Your task to perform on an android device: turn off priority inbox in the gmail app Image 0: 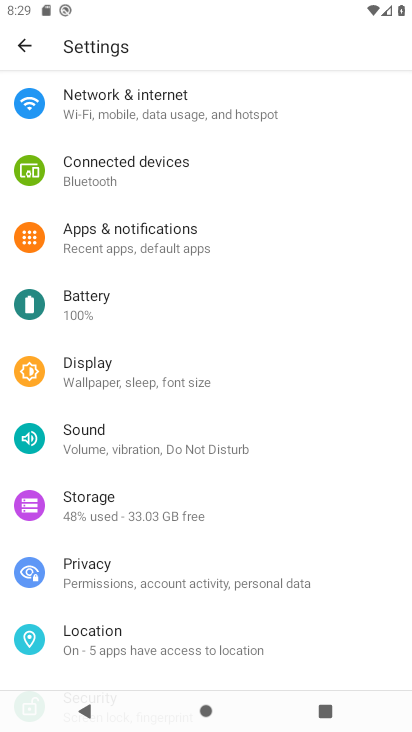
Step 0: press home button
Your task to perform on an android device: turn off priority inbox in the gmail app Image 1: 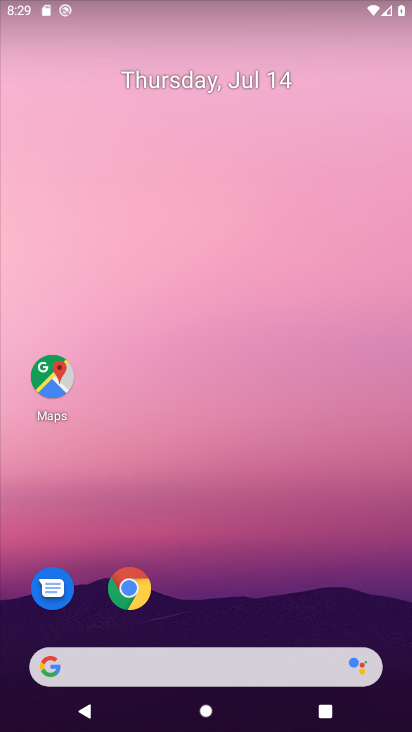
Step 1: drag from (350, 591) to (347, 150)
Your task to perform on an android device: turn off priority inbox in the gmail app Image 2: 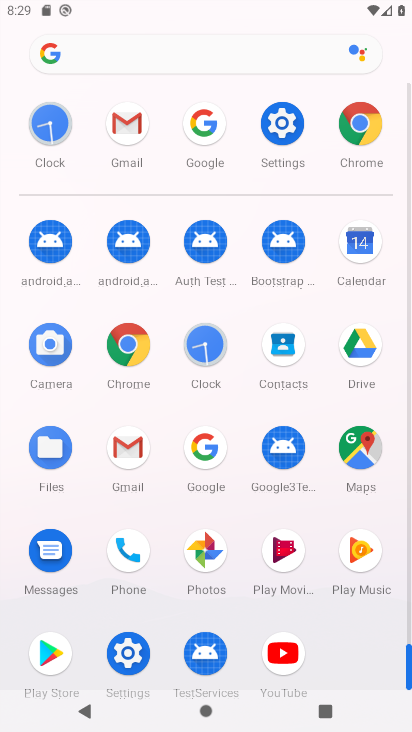
Step 2: click (134, 448)
Your task to perform on an android device: turn off priority inbox in the gmail app Image 3: 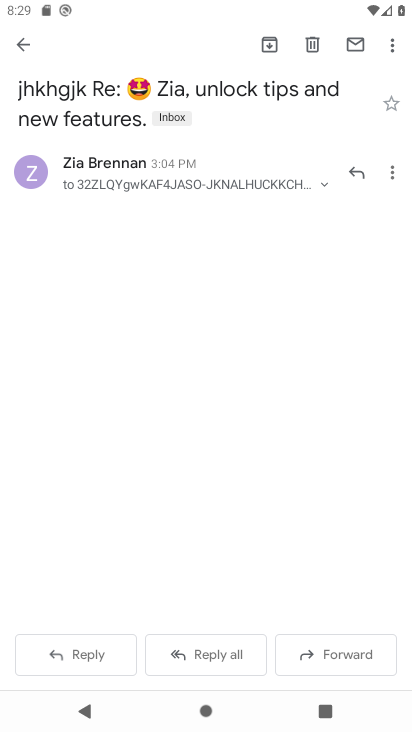
Step 3: press back button
Your task to perform on an android device: turn off priority inbox in the gmail app Image 4: 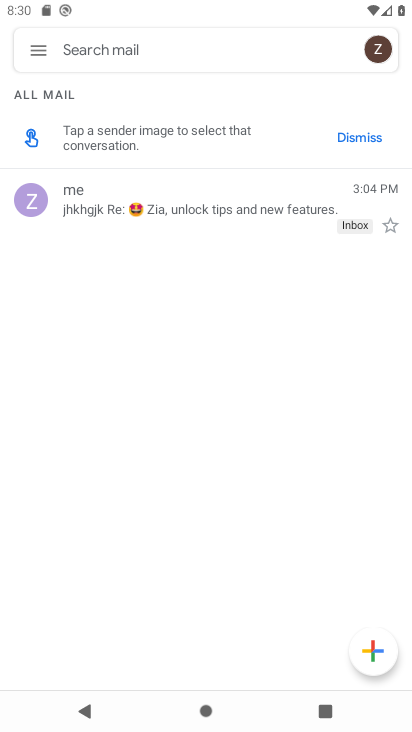
Step 4: click (39, 57)
Your task to perform on an android device: turn off priority inbox in the gmail app Image 5: 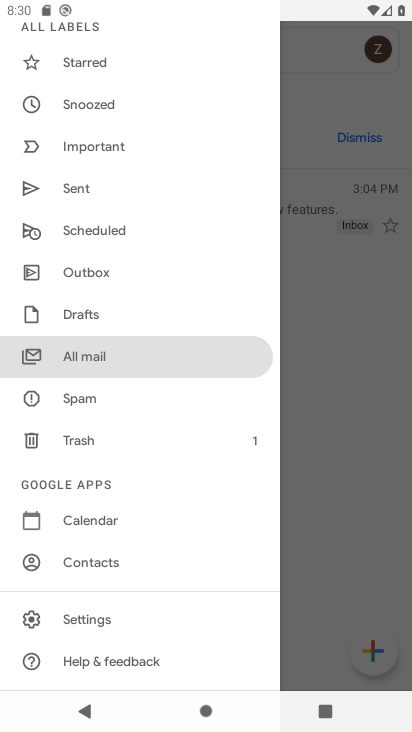
Step 5: drag from (225, 190) to (221, 279)
Your task to perform on an android device: turn off priority inbox in the gmail app Image 6: 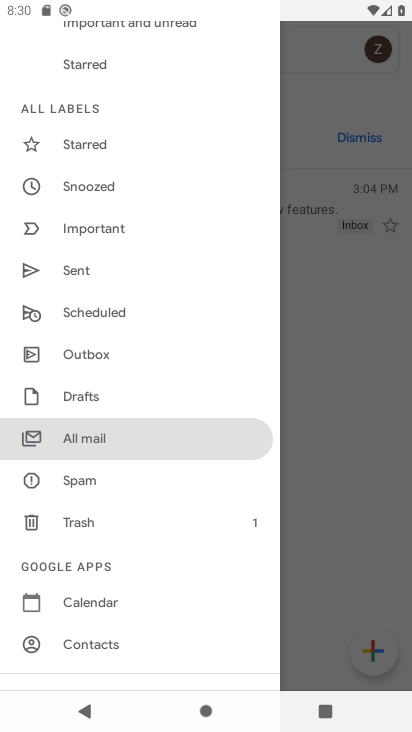
Step 6: drag from (220, 181) to (220, 263)
Your task to perform on an android device: turn off priority inbox in the gmail app Image 7: 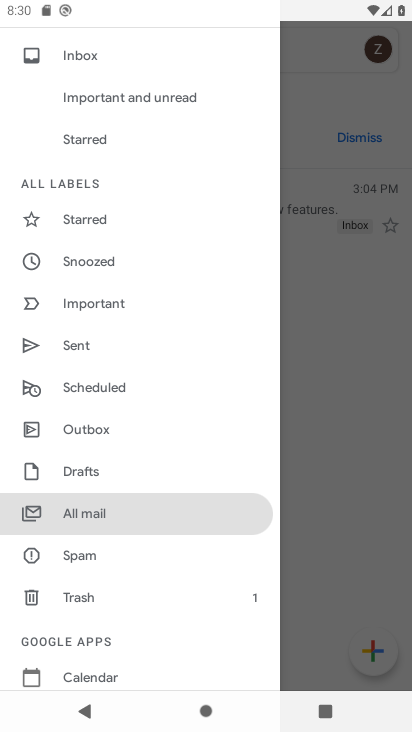
Step 7: drag from (219, 170) to (230, 368)
Your task to perform on an android device: turn off priority inbox in the gmail app Image 8: 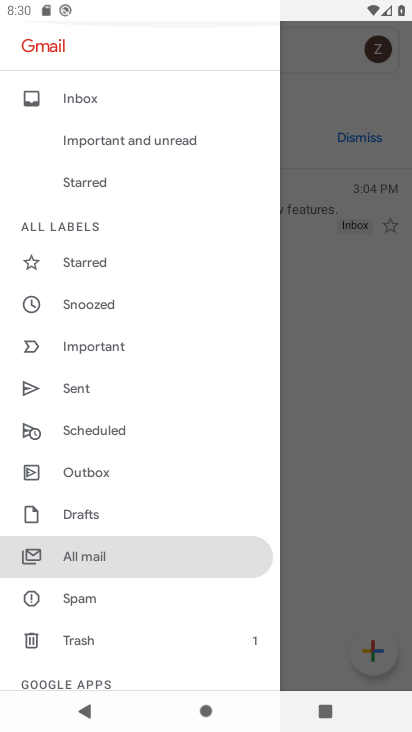
Step 8: drag from (223, 405) to (223, 228)
Your task to perform on an android device: turn off priority inbox in the gmail app Image 9: 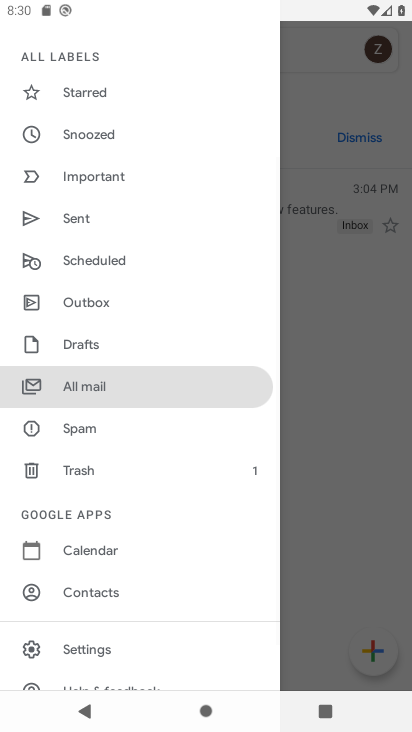
Step 9: drag from (201, 345) to (202, 195)
Your task to perform on an android device: turn off priority inbox in the gmail app Image 10: 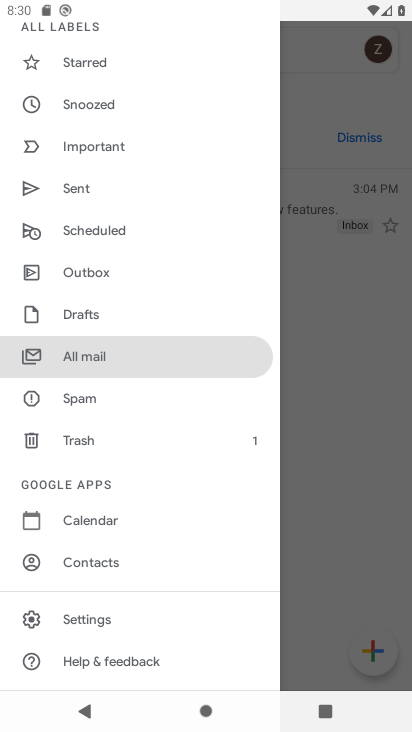
Step 10: drag from (188, 333) to (189, 189)
Your task to perform on an android device: turn off priority inbox in the gmail app Image 11: 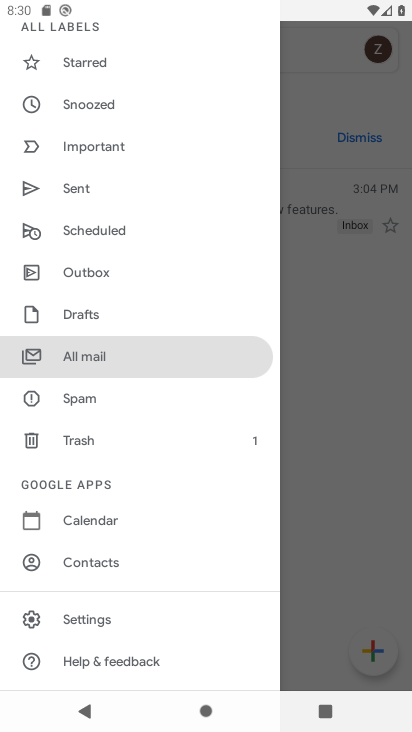
Step 11: click (136, 610)
Your task to perform on an android device: turn off priority inbox in the gmail app Image 12: 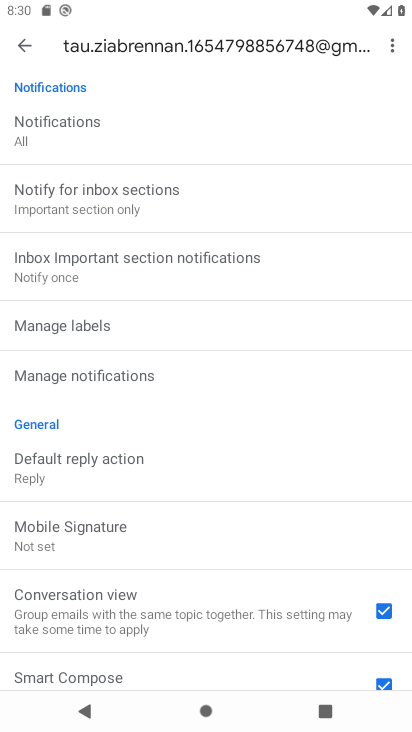
Step 12: drag from (226, 471) to (239, 349)
Your task to perform on an android device: turn off priority inbox in the gmail app Image 13: 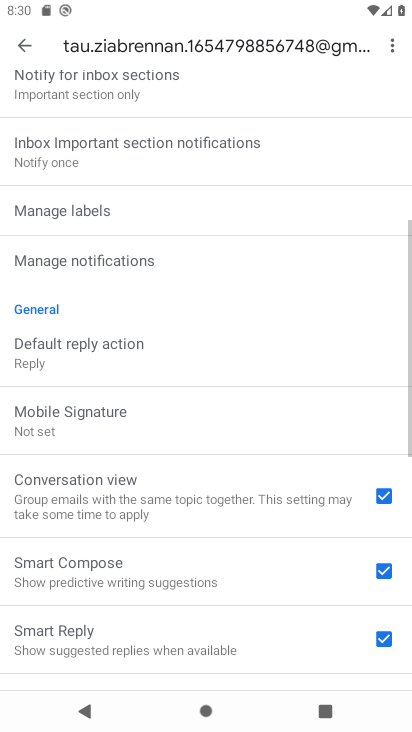
Step 13: drag from (257, 454) to (258, 334)
Your task to perform on an android device: turn off priority inbox in the gmail app Image 14: 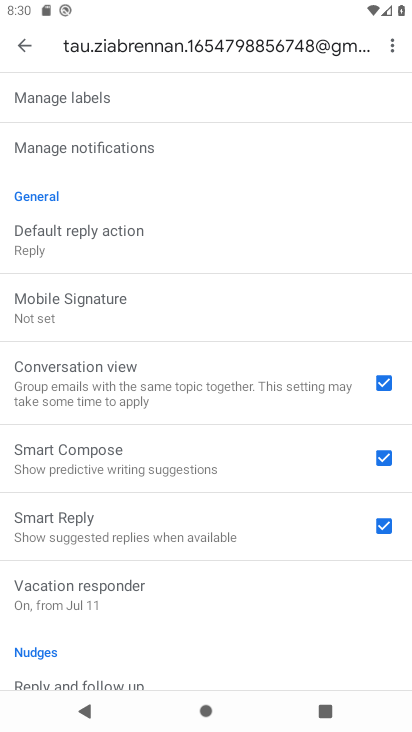
Step 14: drag from (268, 447) to (268, 309)
Your task to perform on an android device: turn off priority inbox in the gmail app Image 15: 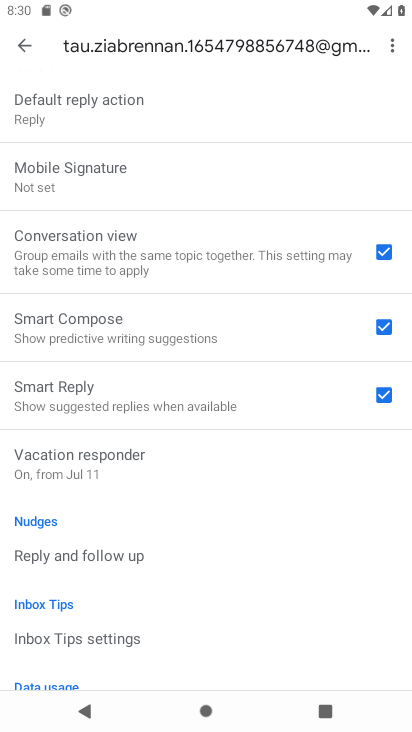
Step 15: drag from (280, 490) to (275, 369)
Your task to perform on an android device: turn off priority inbox in the gmail app Image 16: 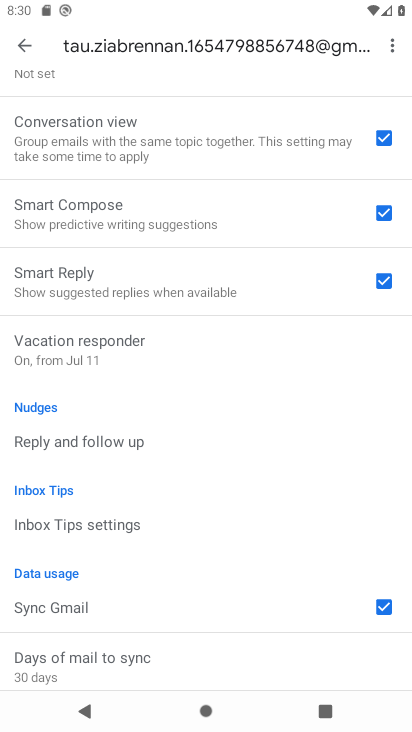
Step 16: drag from (282, 282) to (282, 362)
Your task to perform on an android device: turn off priority inbox in the gmail app Image 17: 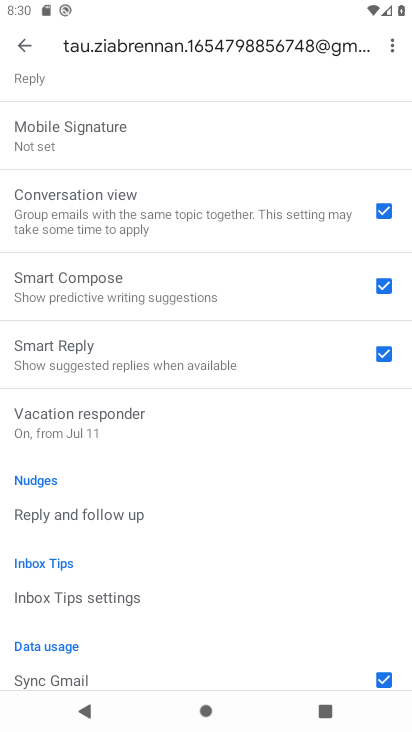
Step 17: drag from (293, 282) to (297, 375)
Your task to perform on an android device: turn off priority inbox in the gmail app Image 18: 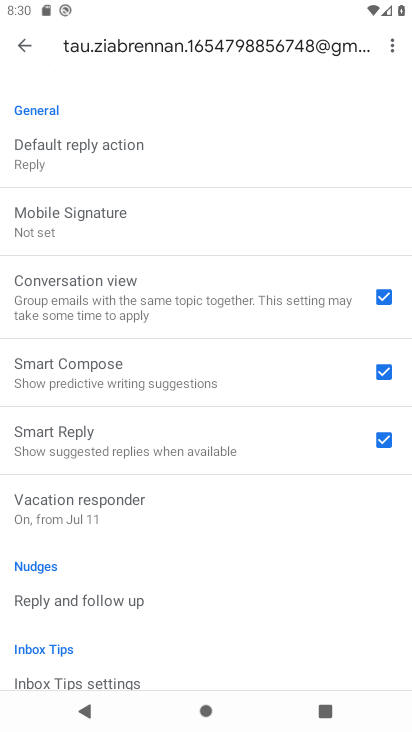
Step 18: drag from (300, 278) to (306, 362)
Your task to perform on an android device: turn off priority inbox in the gmail app Image 19: 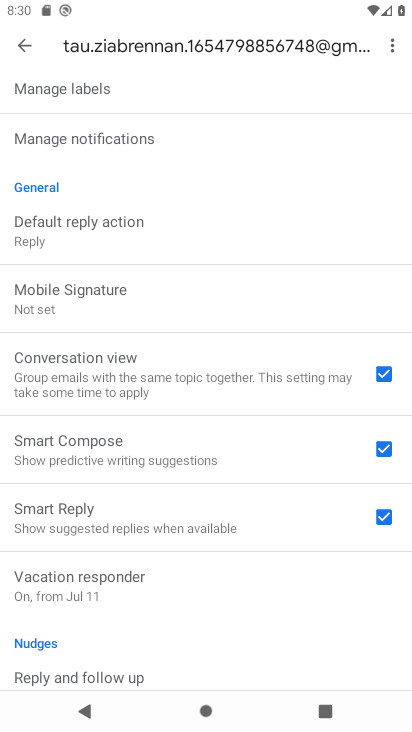
Step 19: drag from (304, 282) to (306, 346)
Your task to perform on an android device: turn off priority inbox in the gmail app Image 20: 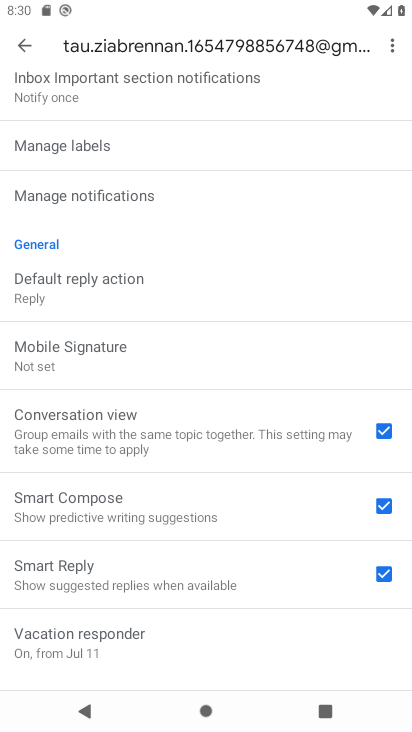
Step 20: drag from (316, 265) to (319, 357)
Your task to perform on an android device: turn off priority inbox in the gmail app Image 21: 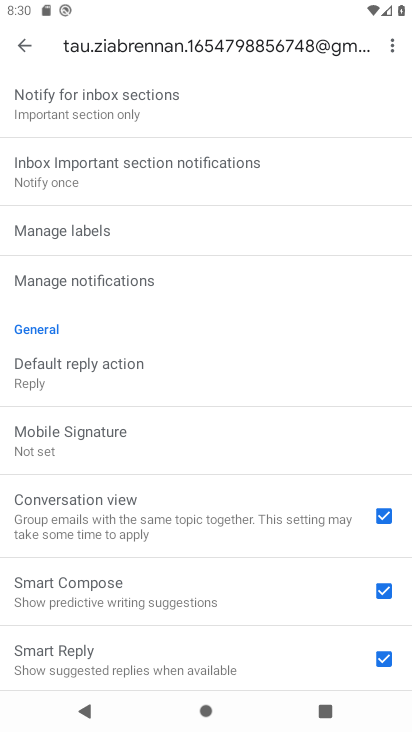
Step 21: drag from (315, 266) to (314, 350)
Your task to perform on an android device: turn off priority inbox in the gmail app Image 22: 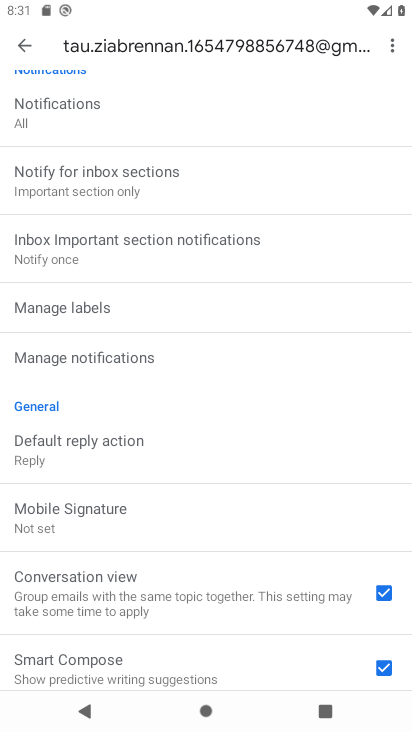
Step 22: drag from (316, 282) to (325, 370)
Your task to perform on an android device: turn off priority inbox in the gmail app Image 23: 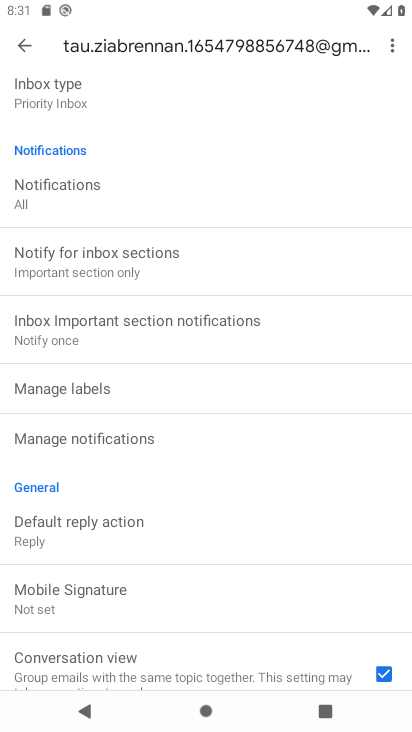
Step 23: drag from (323, 273) to (323, 378)
Your task to perform on an android device: turn off priority inbox in the gmail app Image 24: 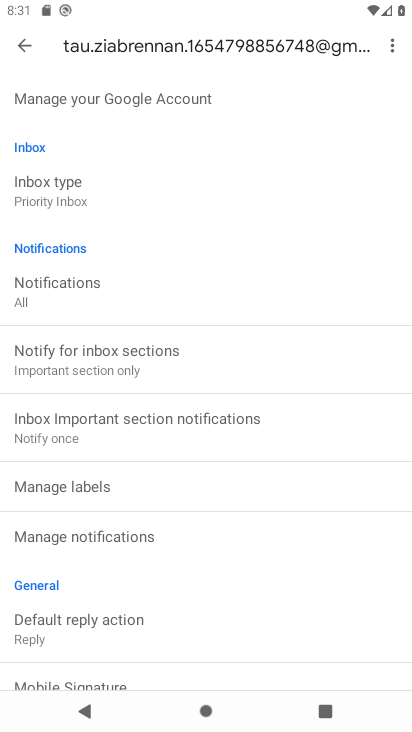
Step 24: drag from (312, 281) to (333, 460)
Your task to perform on an android device: turn off priority inbox in the gmail app Image 25: 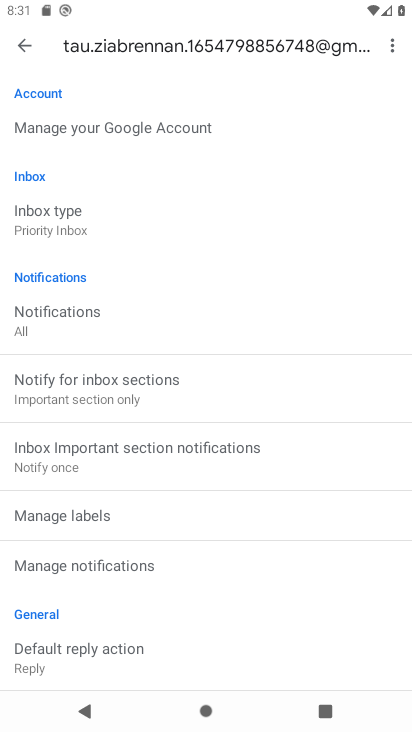
Step 25: click (104, 234)
Your task to perform on an android device: turn off priority inbox in the gmail app Image 26: 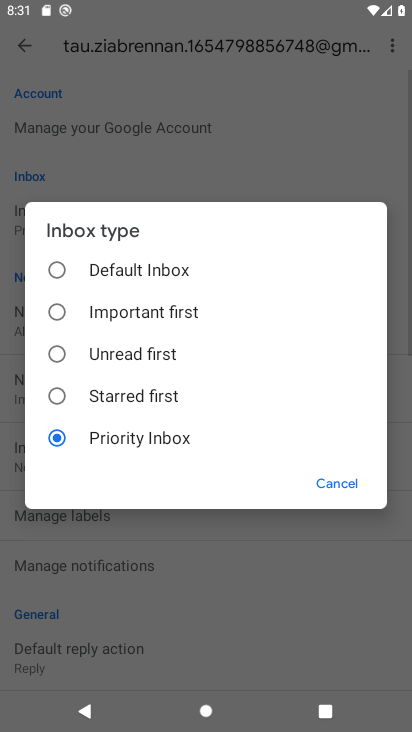
Step 26: click (124, 269)
Your task to perform on an android device: turn off priority inbox in the gmail app Image 27: 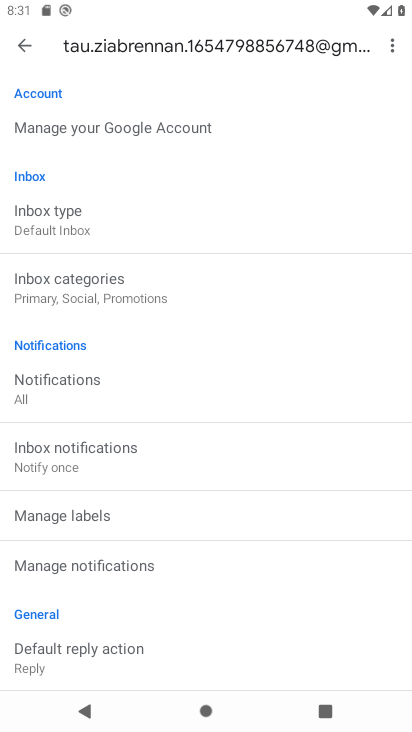
Step 27: task complete